Your task to perform on an android device: turn on wifi Image 0: 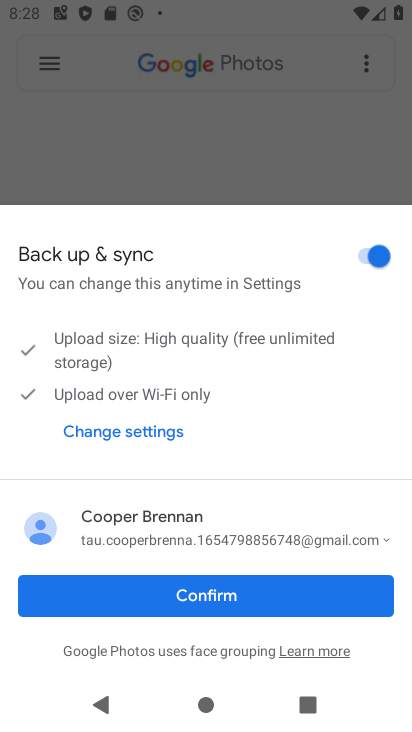
Step 0: press home button
Your task to perform on an android device: turn on wifi Image 1: 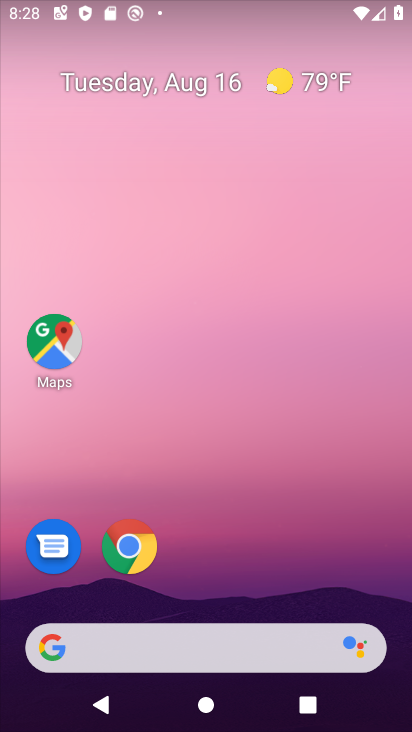
Step 1: drag from (190, 493) to (233, 67)
Your task to perform on an android device: turn on wifi Image 2: 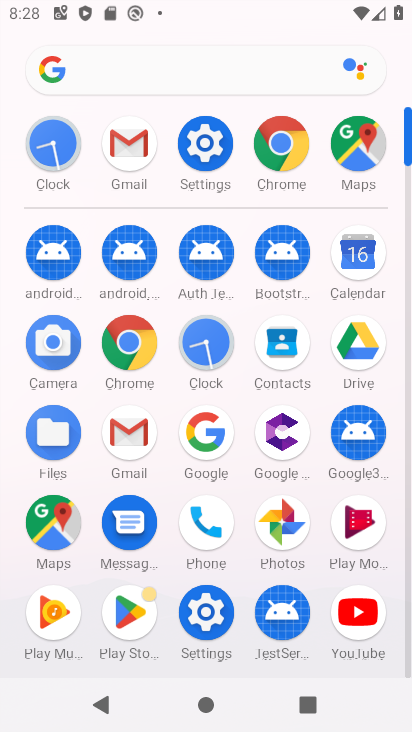
Step 2: click (198, 147)
Your task to perform on an android device: turn on wifi Image 3: 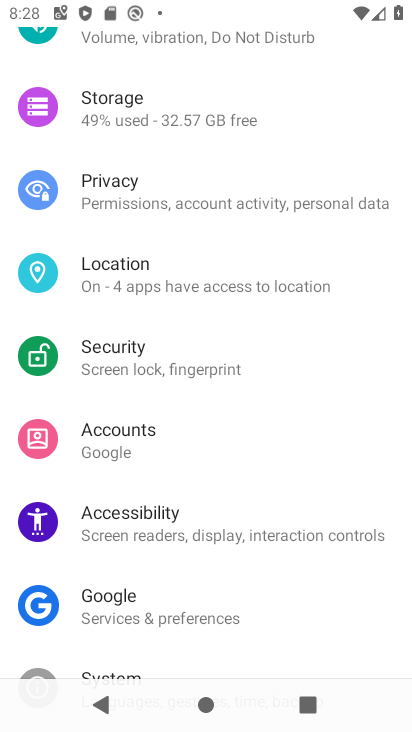
Step 3: drag from (189, 478) to (198, 720)
Your task to perform on an android device: turn on wifi Image 4: 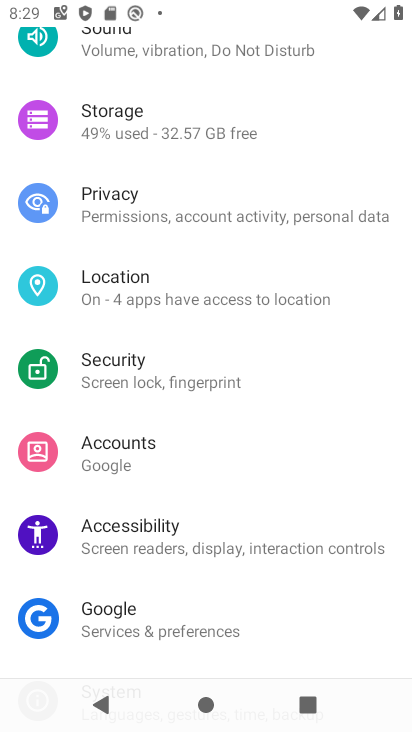
Step 4: drag from (222, 244) to (192, 723)
Your task to perform on an android device: turn on wifi Image 5: 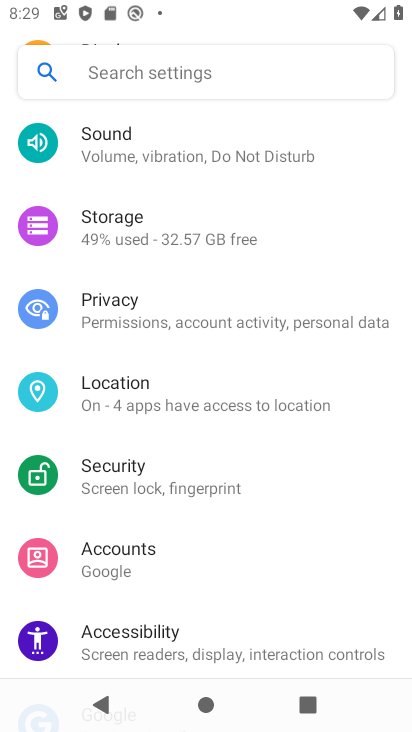
Step 5: drag from (242, 182) to (236, 569)
Your task to perform on an android device: turn on wifi Image 6: 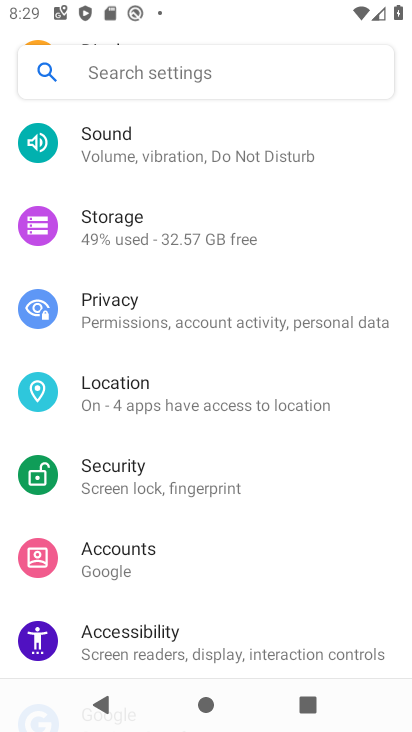
Step 6: drag from (243, 206) to (222, 663)
Your task to perform on an android device: turn on wifi Image 7: 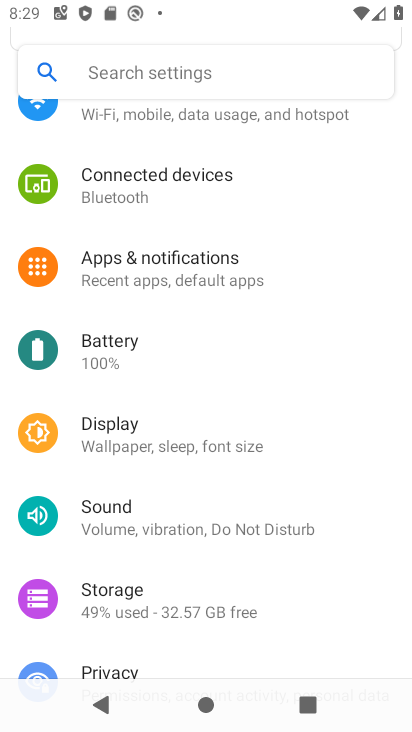
Step 7: click (137, 116)
Your task to perform on an android device: turn on wifi Image 8: 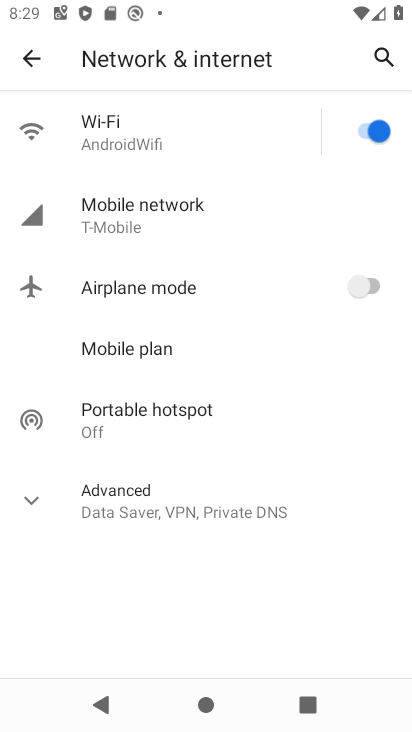
Step 8: task complete